Your task to perform on an android device: Open Yahoo.com Image 0: 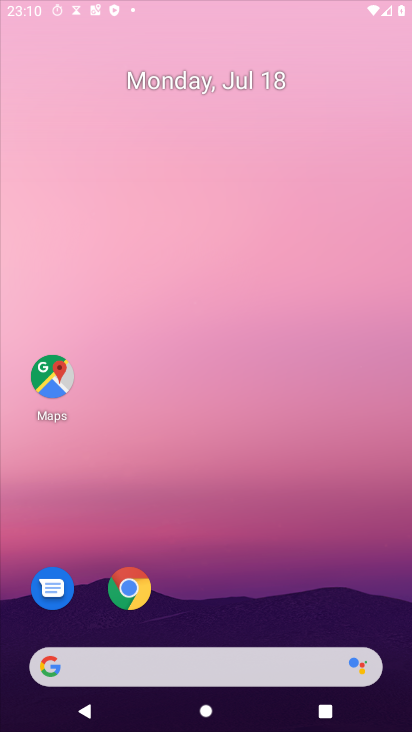
Step 0: press home button
Your task to perform on an android device: Open Yahoo.com Image 1: 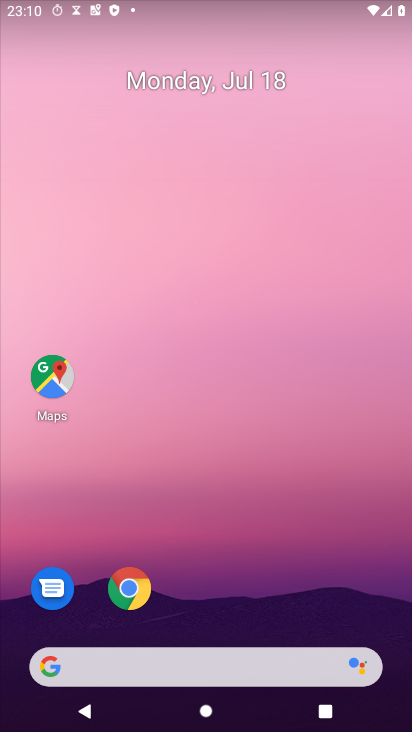
Step 1: click (133, 590)
Your task to perform on an android device: Open Yahoo.com Image 2: 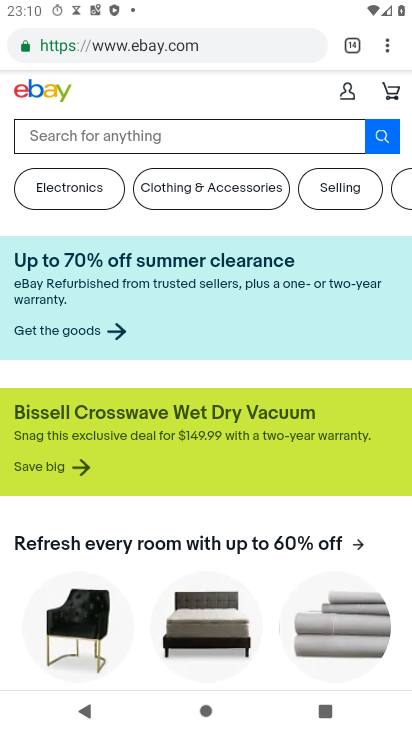
Step 2: drag from (384, 46) to (239, 89)
Your task to perform on an android device: Open Yahoo.com Image 3: 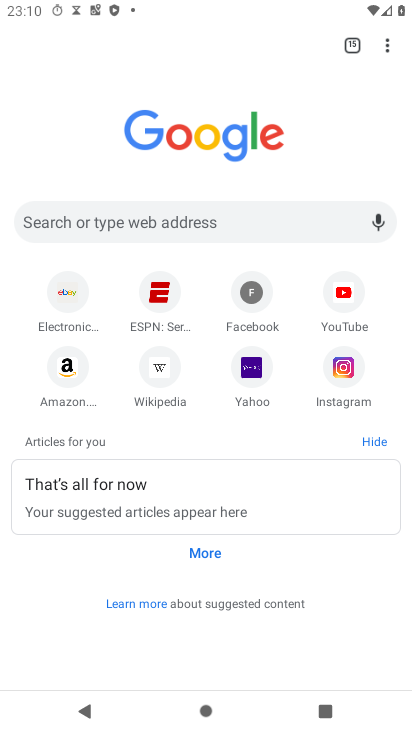
Step 3: click (253, 378)
Your task to perform on an android device: Open Yahoo.com Image 4: 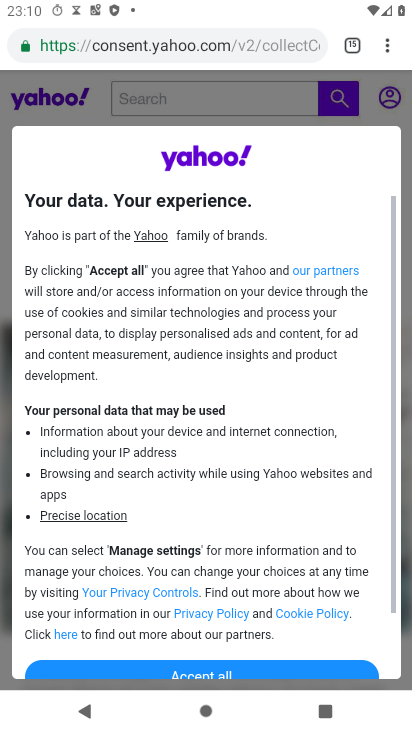
Step 4: drag from (198, 570) to (374, 162)
Your task to perform on an android device: Open Yahoo.com Image 5: 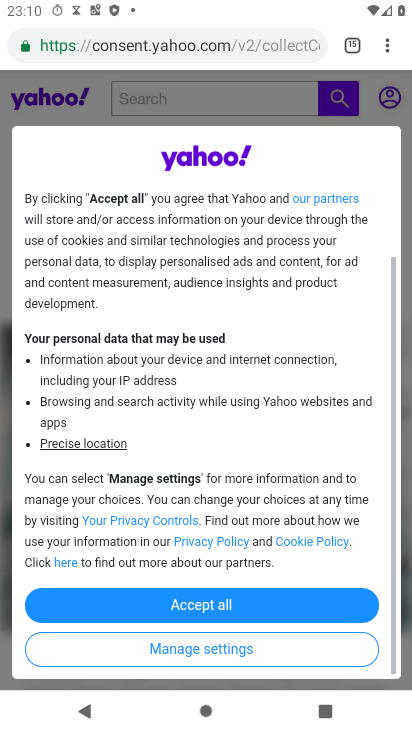
Step 5: click (223, 611)
Your task to perform on an android device: Open Yahoo.com Image 6: 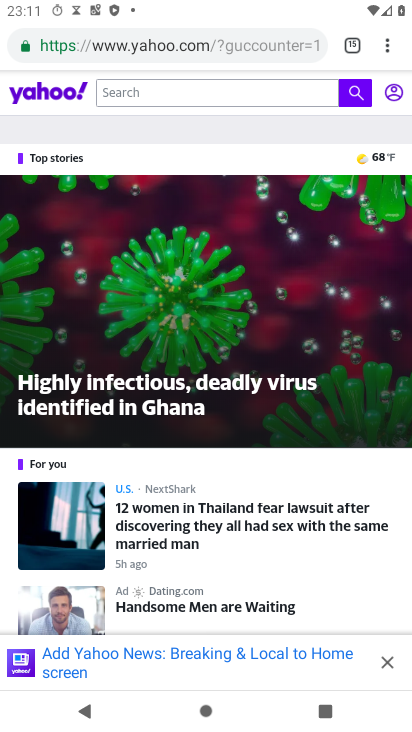
Step 6: task complete